Your task to perform on an android device: all mails in gmail Image 0: 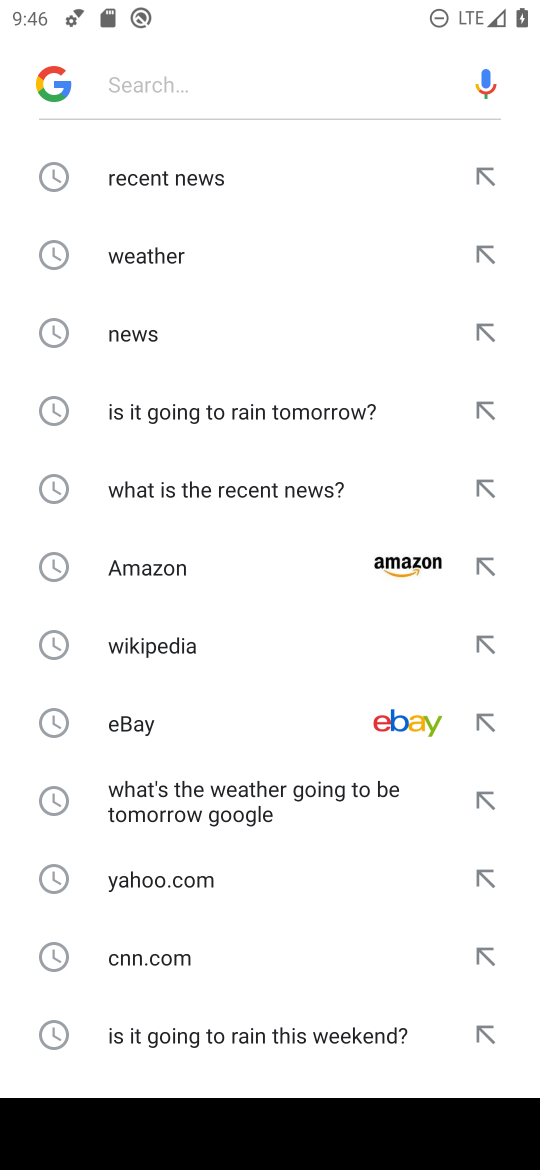
Step 0: press home button
Your task to perform on an android device: all mails in gmail Image 1: 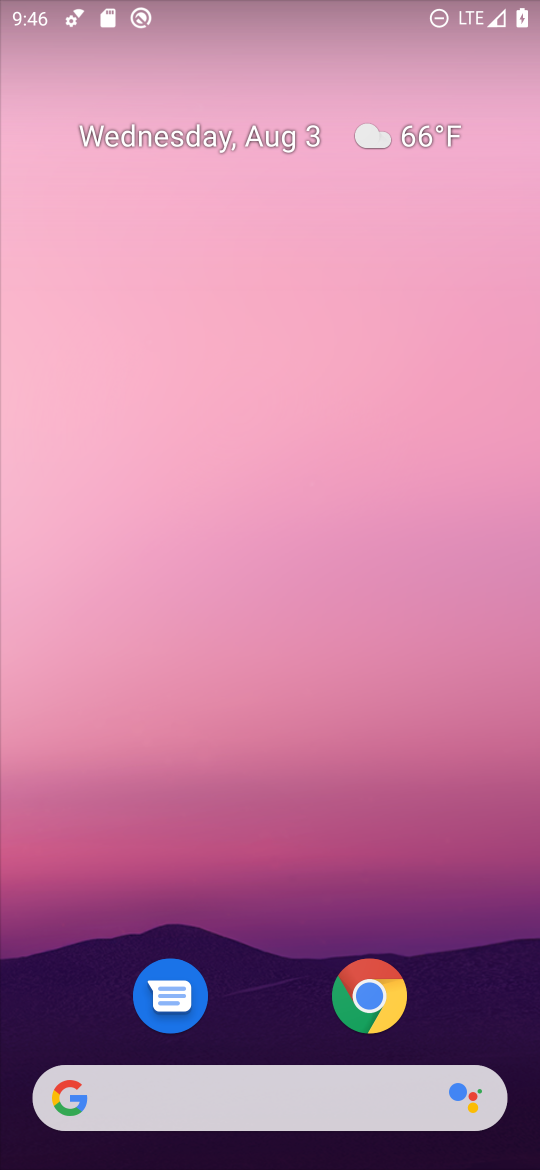
Step 1: drag from (280, 729) to (256, 29)
Your task to perform on an android device: all mails in gmail Image 2: 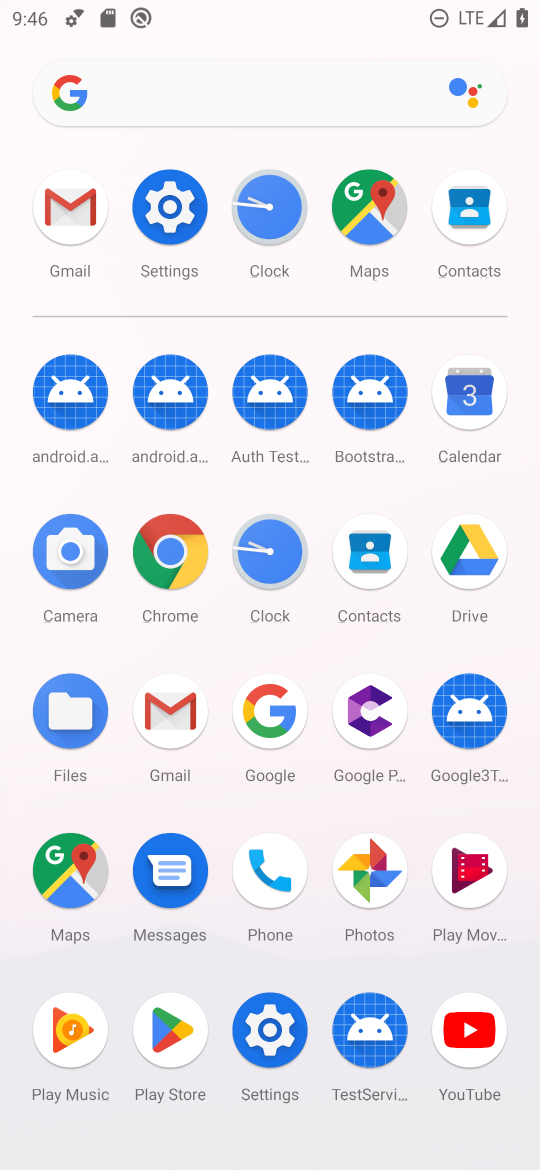
Step 2: click (81, 214)
Your task to perform on an android device: all mails in gmail Image 3: 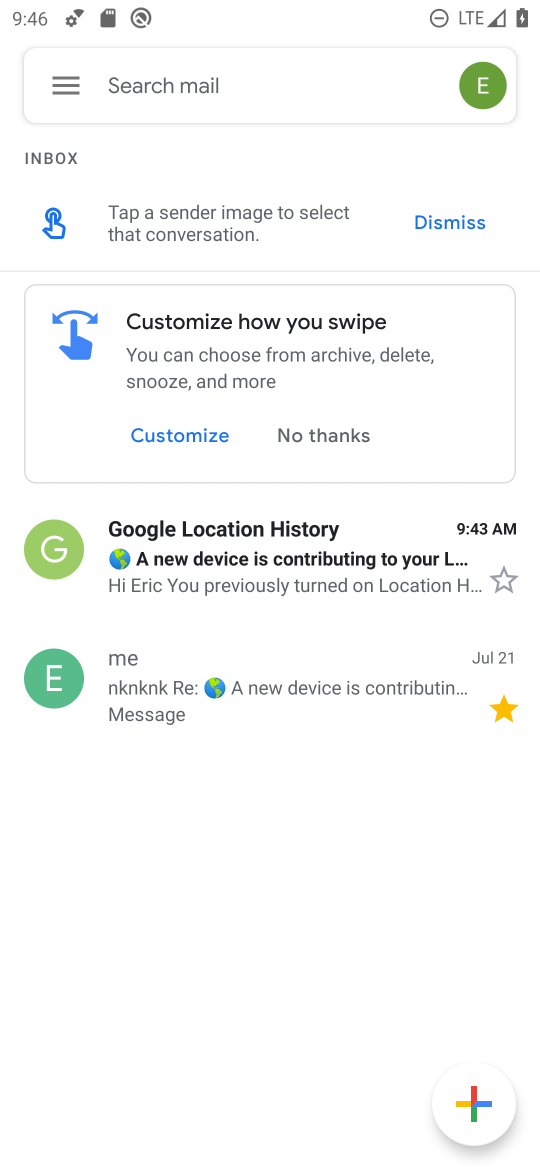
Step 3: click (62, 70)
Your task to perform on an android device: all mails in gmail Image 4: 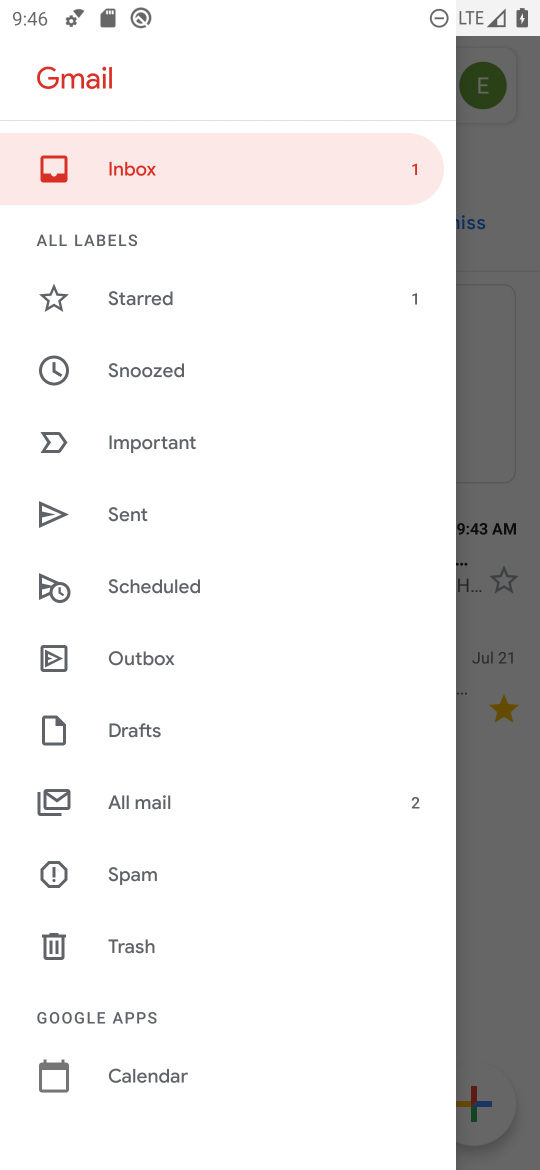
Step 4: click (139, 795)
Your task to perform on an android device: all mails in gmail Image 5: 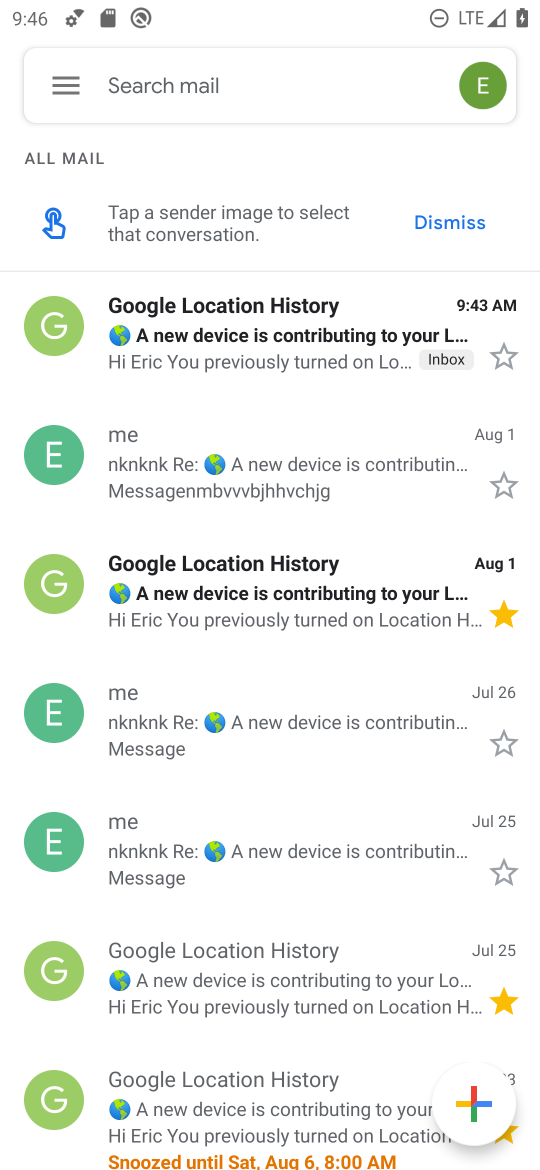
Step 5: task complete